Your task to perform on an android device: add a contact in the contacts app Image 0: 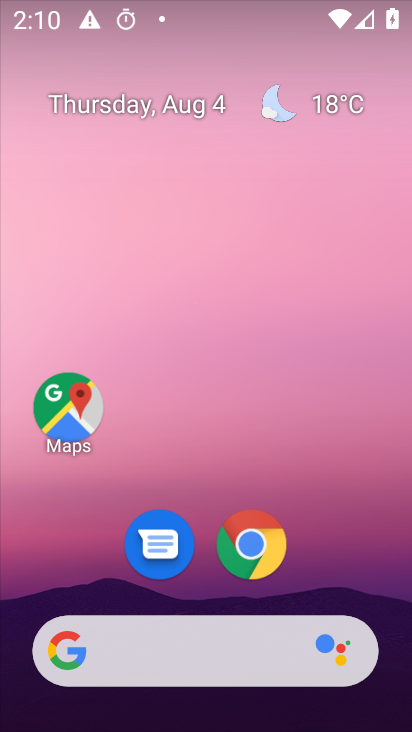
Step 0: drag from (383, 654) to (350, 28)
Your task to perform on an android device: add a contact in the contacts app Image 1: 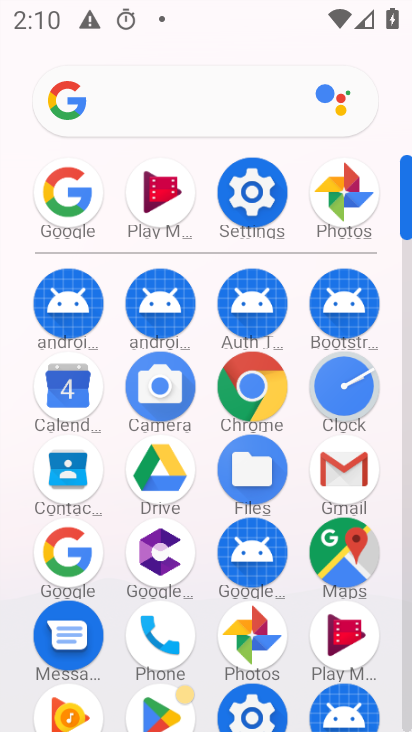
Step 1: click (78, 467)
Your task to perform on an android device: add a contact in the contacts app Image 2: 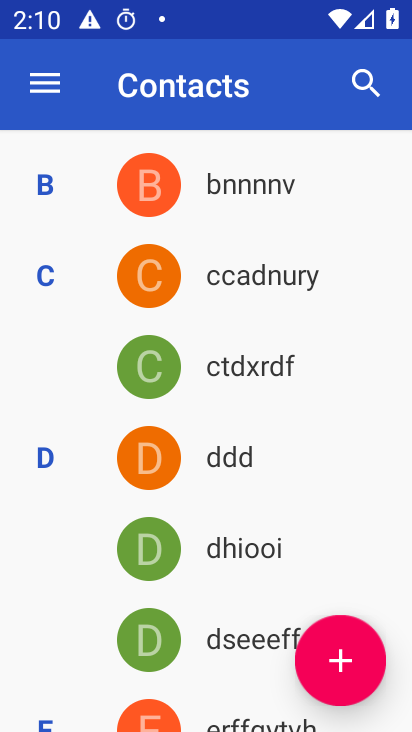
Step 2: click (320, 673)
Your task to perform on an android device: add a contact in the contacts app Image 3: 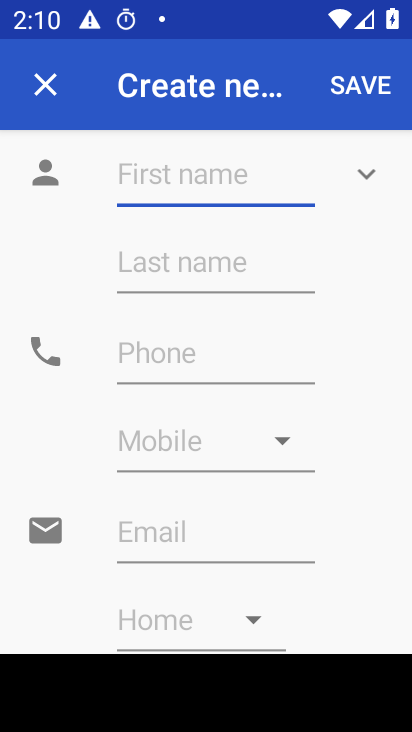
Step 3: type "drecydxexgf"
Your task to perform on an android device: add a contact in the contacts app Image 4: 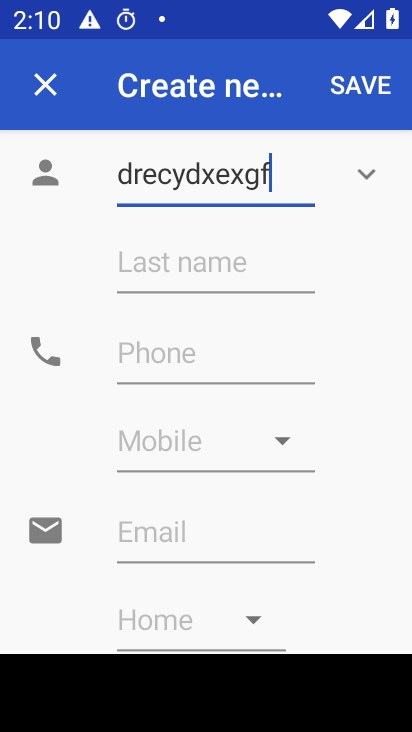
Step 4: click (183, 262)
Your task to perform on an android device: add a contact in the contacts app Image 5: 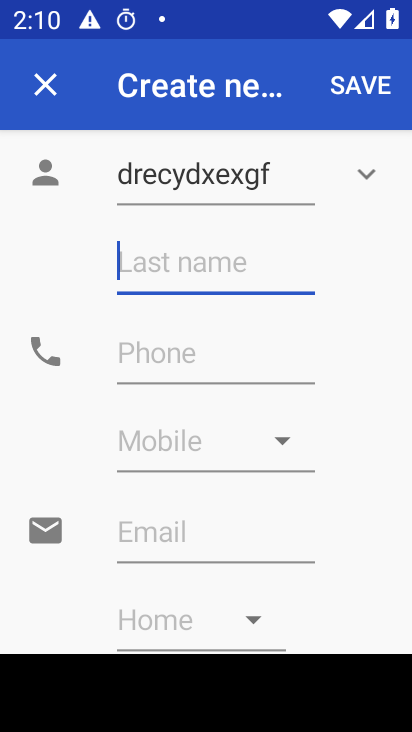
Step 5: type "fgshcbxwad"
Your task to perform on an android device: add a contact in the contacts app Image 6: 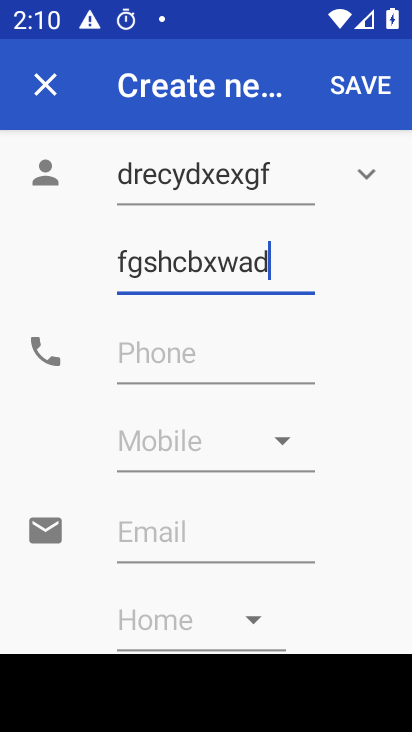
Step 6: click (187, 369)
Your task to perform on an android device: add a contact in the contacts app Image 7: 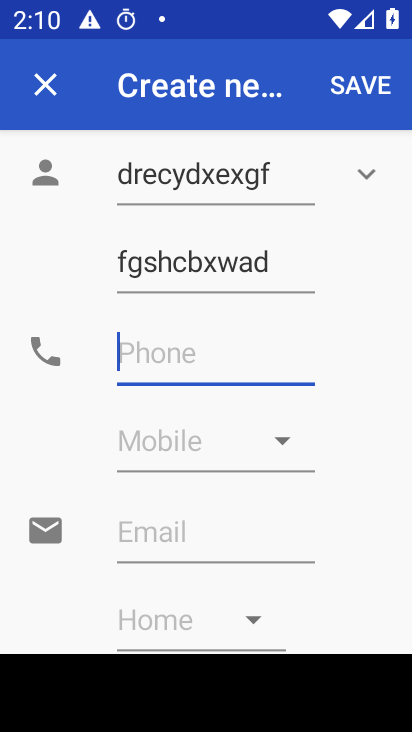
Step 7: type "74453433544534254"
Your task to perform on an android device: add a contact in the contacts app Image 8: 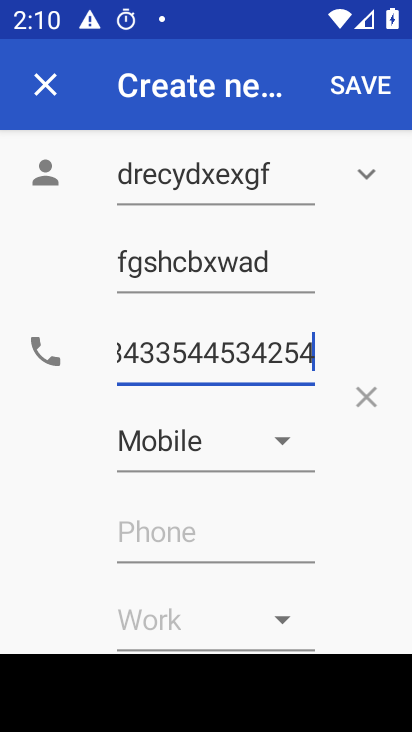
Step 8: click (373, 78)
Your task to perform on an android device: add a contact in the contacts app Image 9: 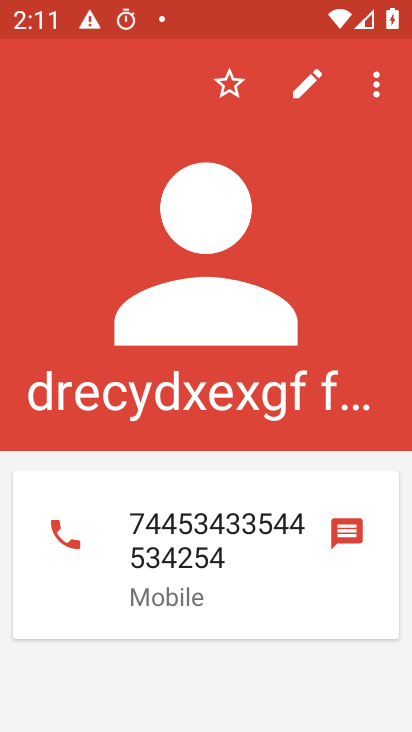
Step 9: task complete